Your task to perform on an android device: Go to accessibility settings Image 0: 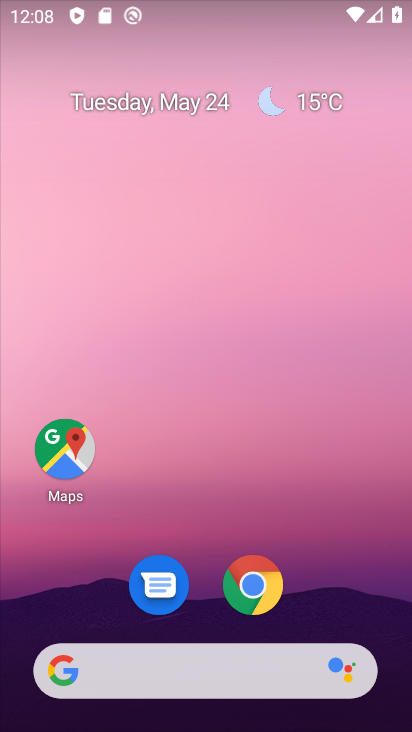
Step 0: drag from (259, 511) to (259, 32)
Your task to perform on an android device: Go to accessibility settings Image 1: 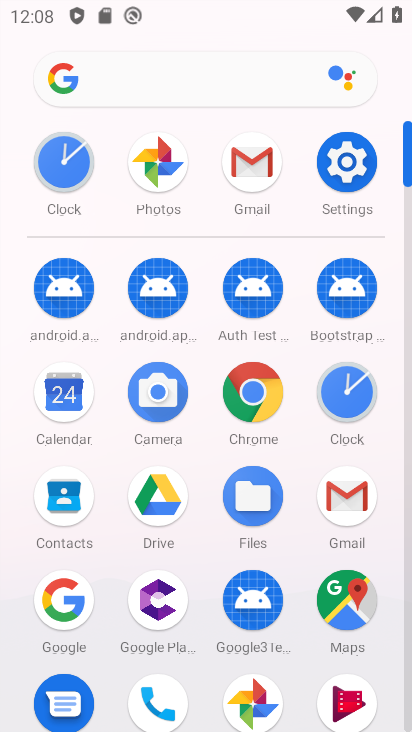
Step 1: click (352, 170)
Your task to perform on an android device: Go to accessibility settings Image 2: 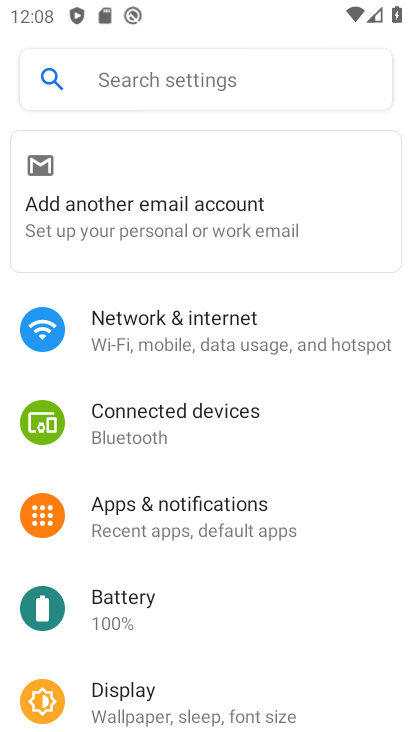
Step 2: drag from (259, 627) to (269, 106)
Your task to perform on an android device: Go to accessibility settings Image 3: 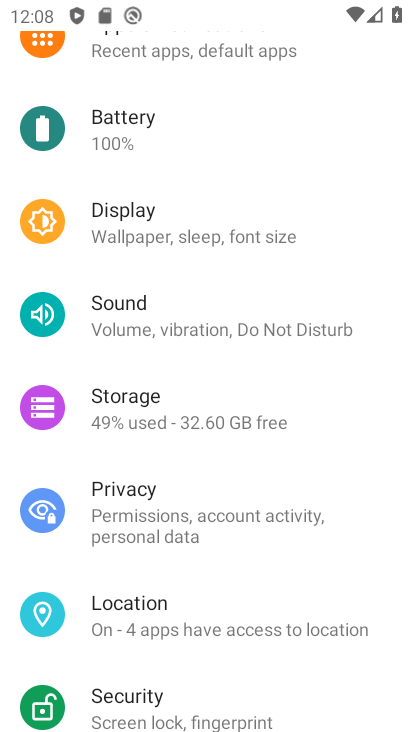
Step 3: drag from (240, 538) to (252, 129)
Your task to perform on an android device: Go to accessibility settings Image 4: 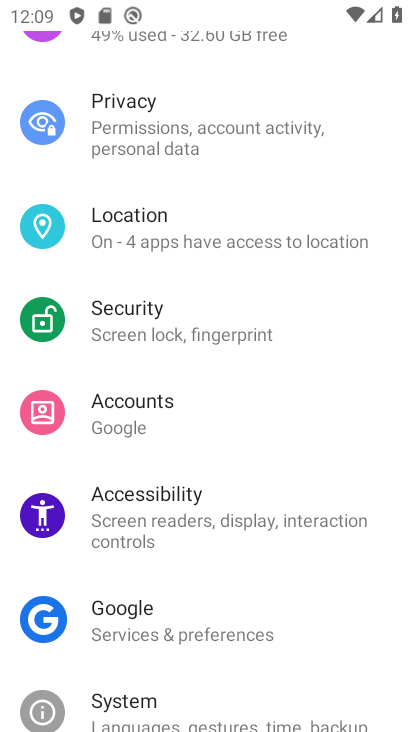
Step 4: click (215, 513)
Your task to perform on an android device: Go to accessibility settings Image 5: 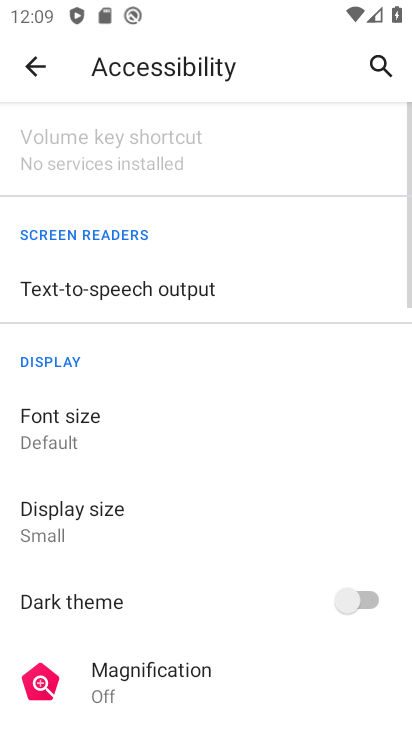
Step 5: task complete